Your task to perform on an android device: Add razer kraken to the cart on costco Image 0: 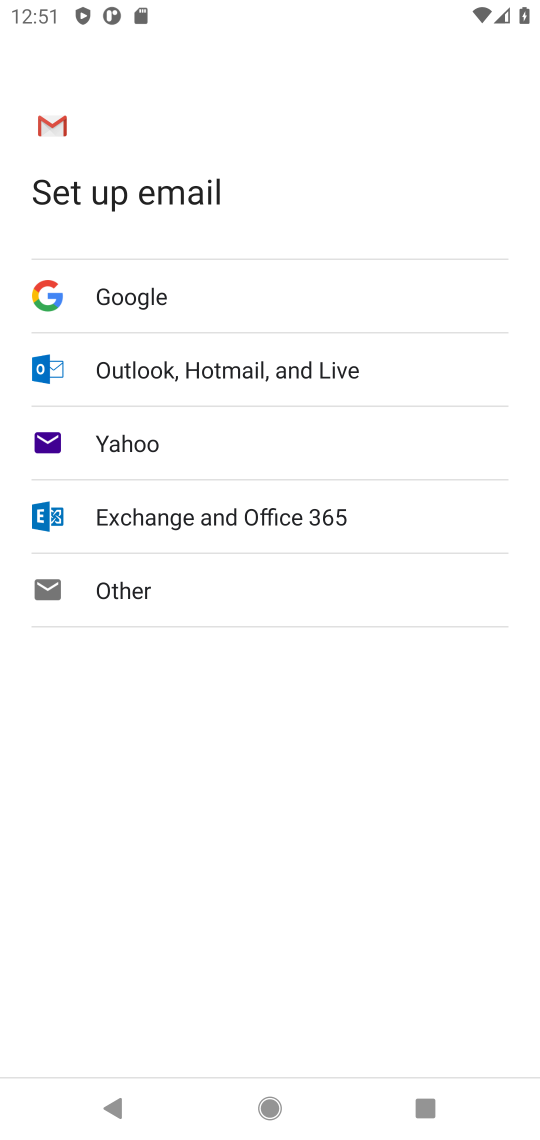
Step 0: press home button
Your task to perform on an android device: Add razer kraken to the cart on costco Image 1: 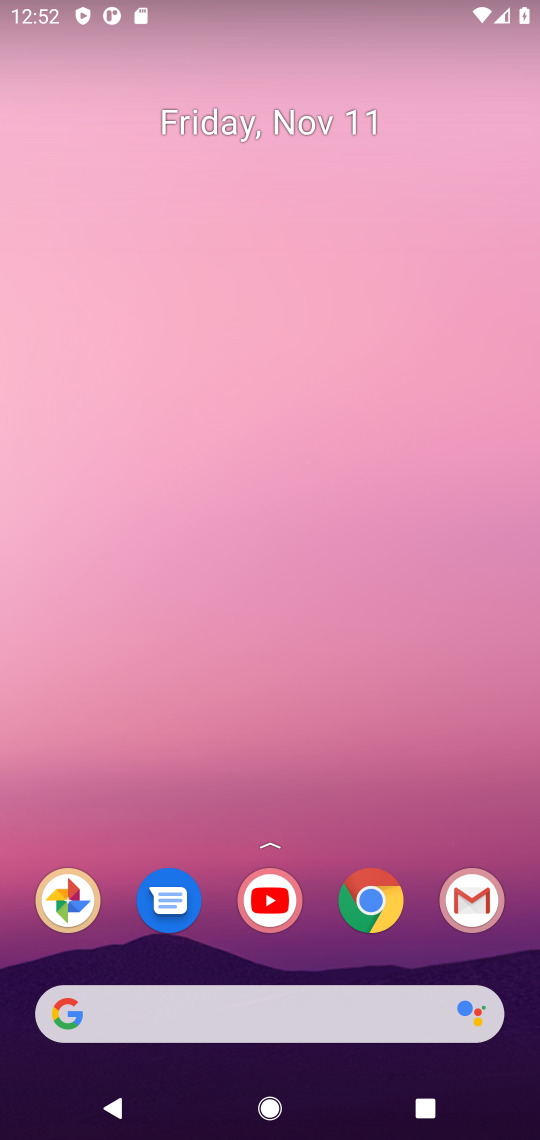
Step 1: click (366, 902)
Your task to perform on an android device: Add razer kraken to the cart on costco Image 2: 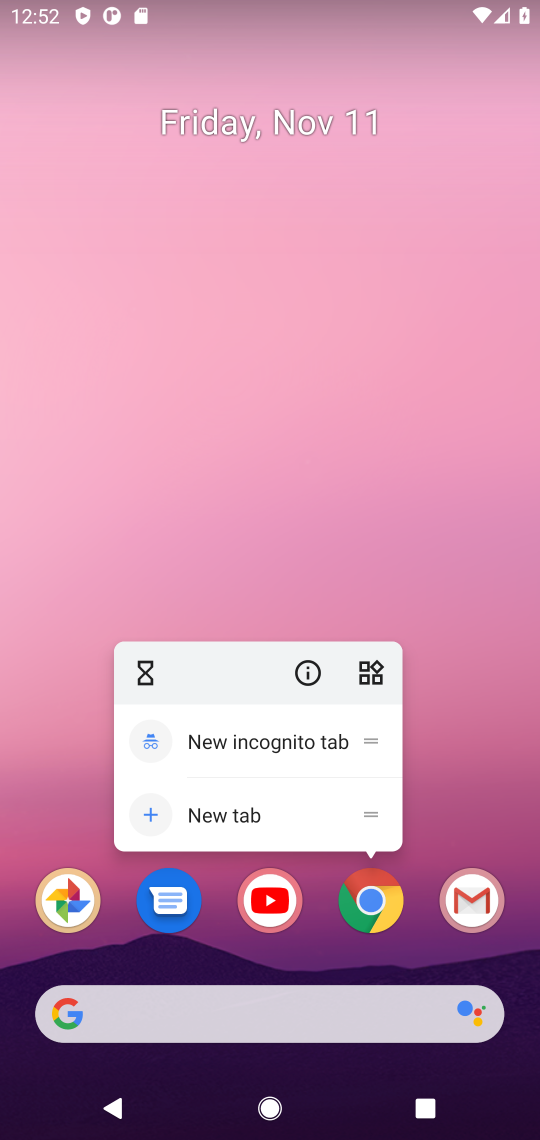
Step 2: click (304, 931)
Your task to perform on an android device: Add razer kraken to the cart on costco Image 3: 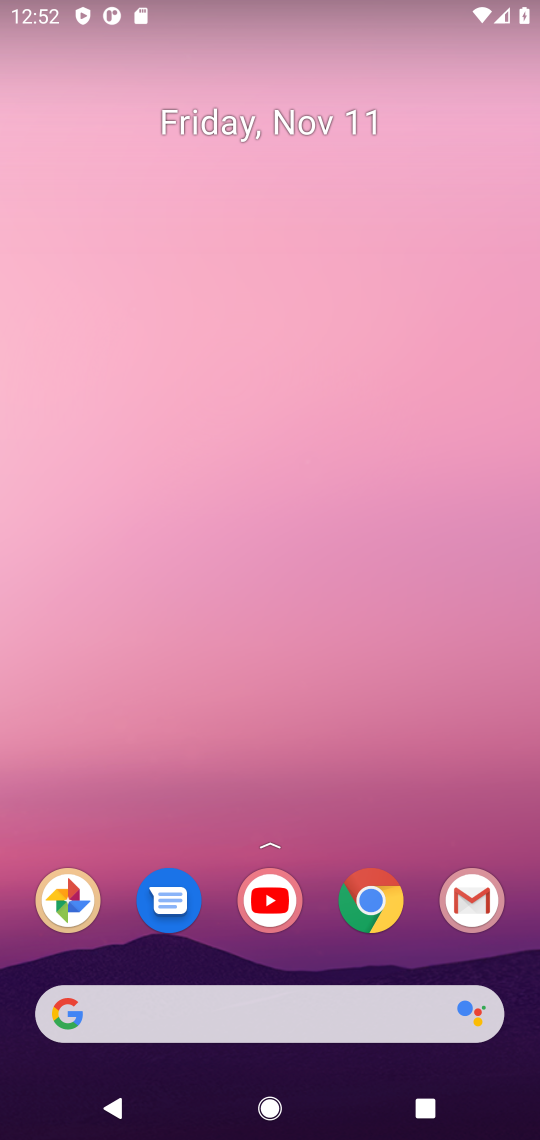
Step 3: click (372, 908)
Your task to perform on an android device: Add razer kraken to the cart on costco Image 4: 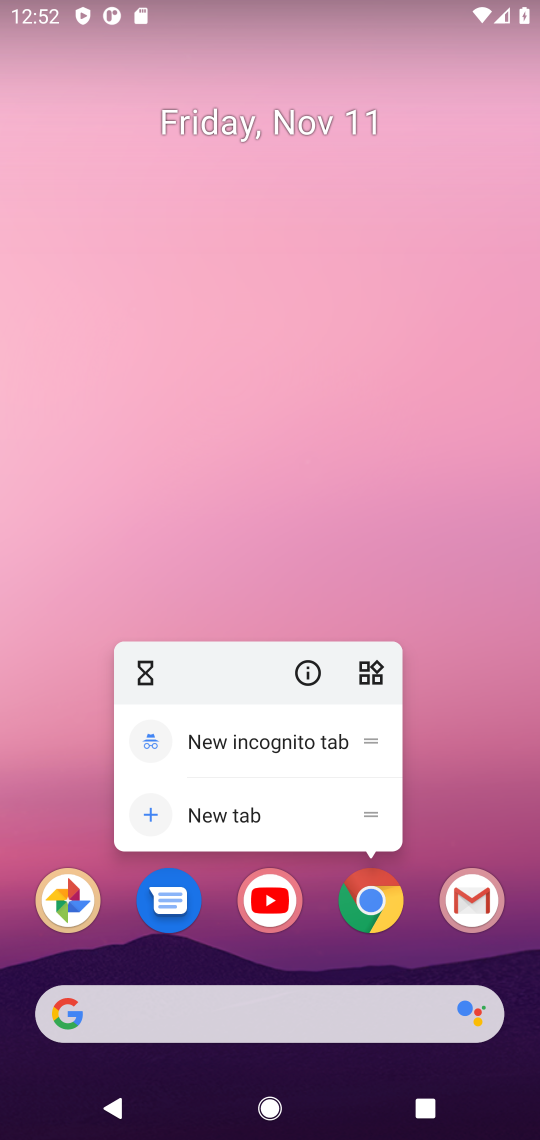
Step 4: click (372, 909)
Your task to perform on an android device: Add razer kraken to the cart on costco Image 5: 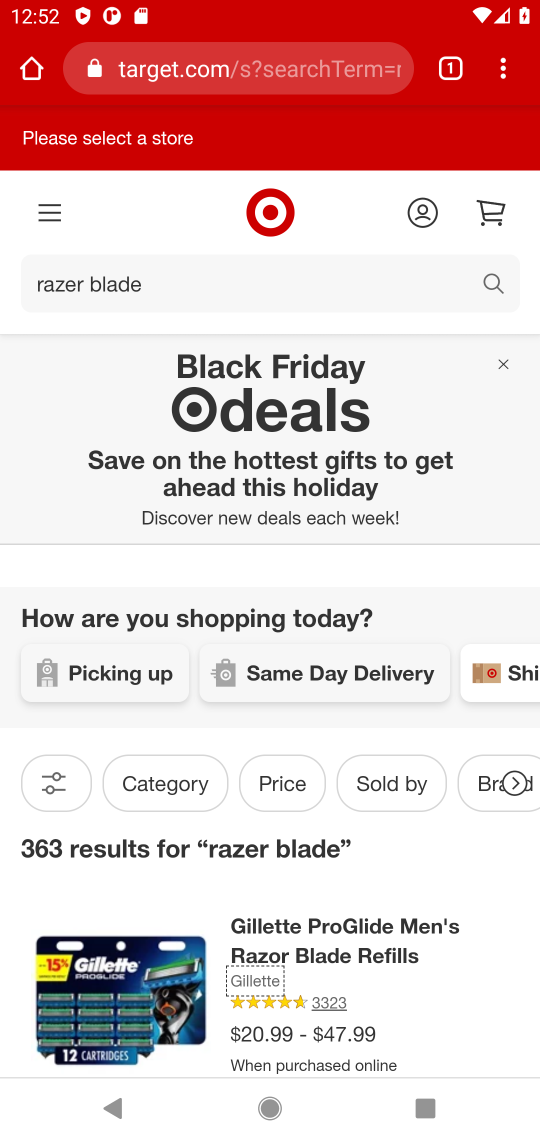
Step 5: click (248, 70)
Your task to perform on an android device: Add razer kraken to the cart on costco Image 6: 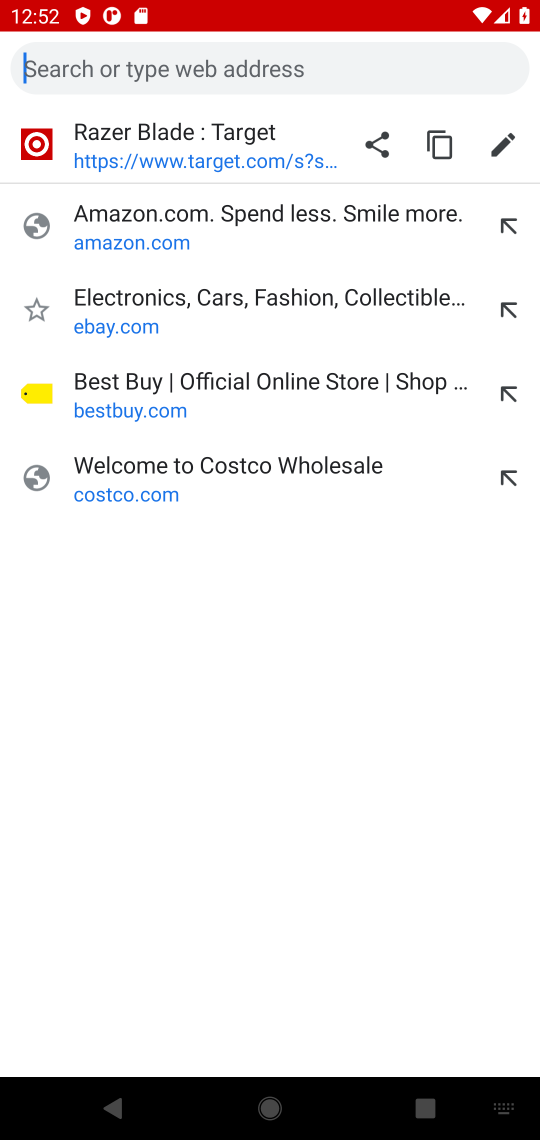
Step 6: press enter
Your task to perform on an android device: Add razer kraken to the cart on costco Image 7: 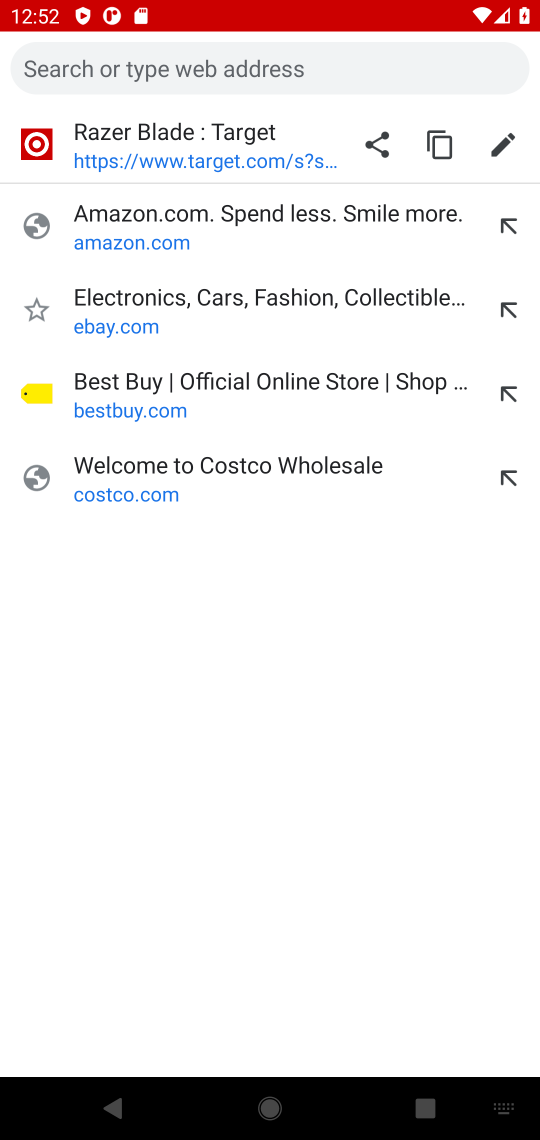
Step 7: type "costco"
Your task to perform on an android device: Add razer kraken to the cart on costco Image 8: 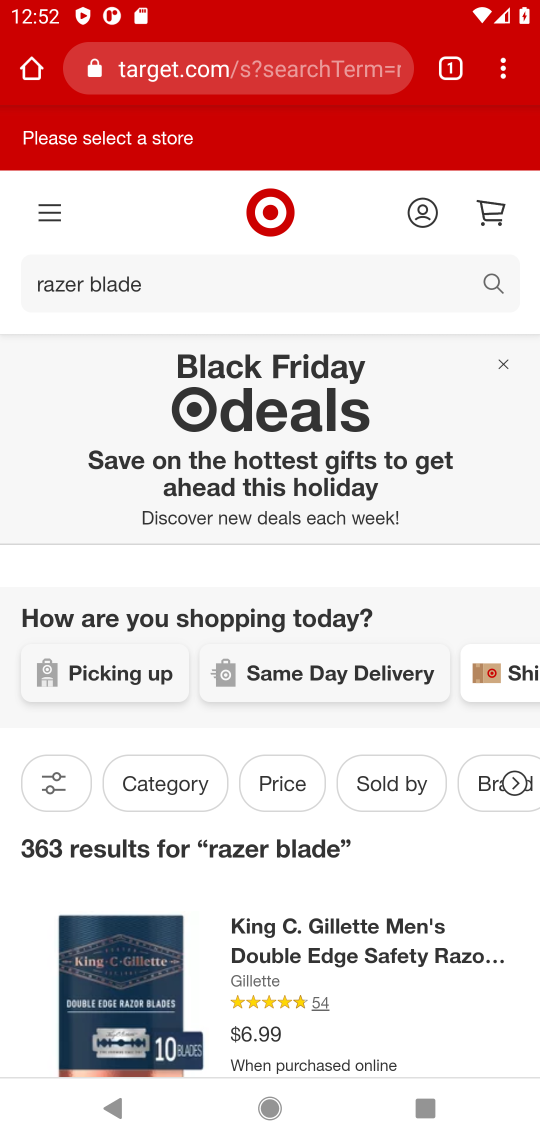
Step 8: click (231, 68)
Your task to perform on an android device: Add razer kraken to the cart on costco Image 9: 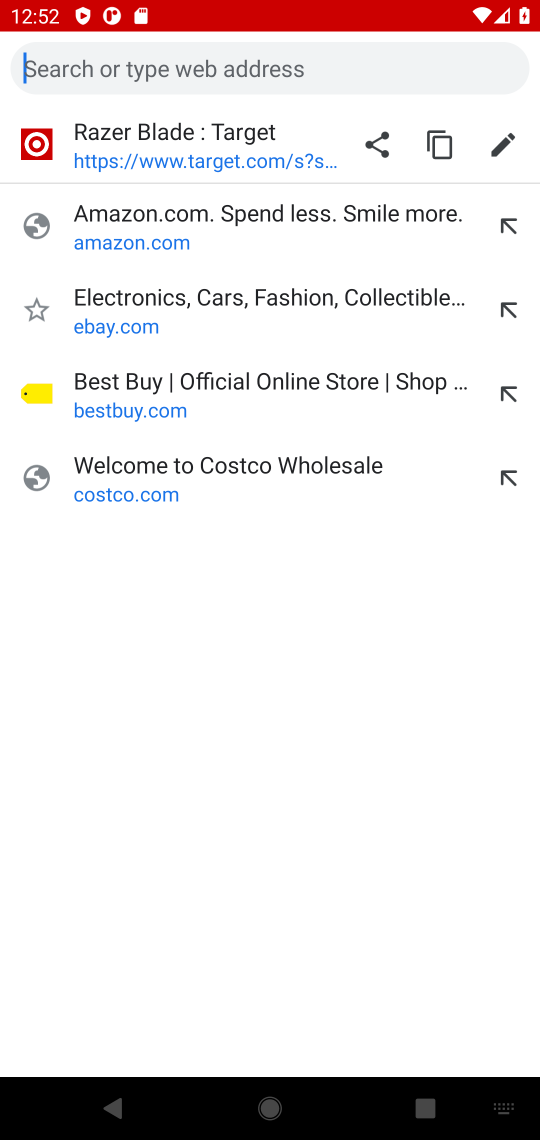
Step 9: type "costco"
Your task to perform on an android device: Add razer kraken to the cart on costco Image 10: 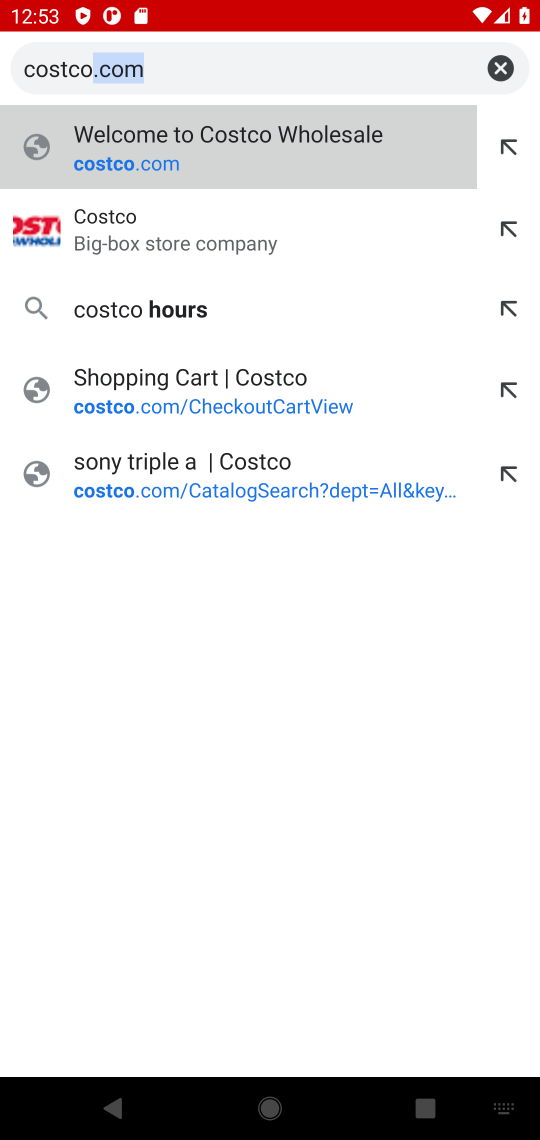
Step 10: press enter
Your task to perform on an android device: Add razer kraken to the cart on costco Image 11: 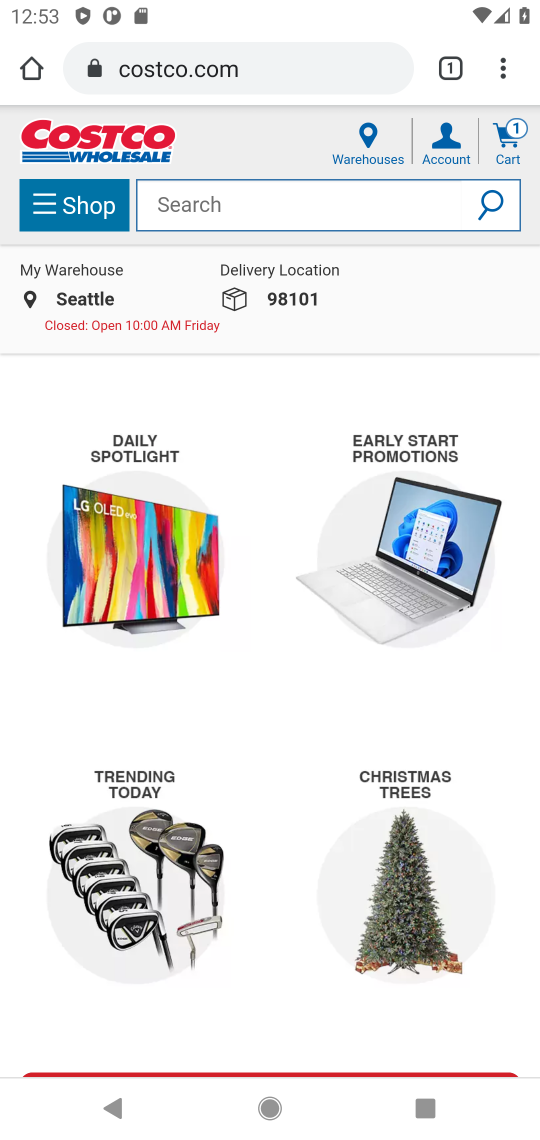
Step 11: click (272, 207)
Your task to perform on an android device: Add razer kraken to the cart on costco Image 12: 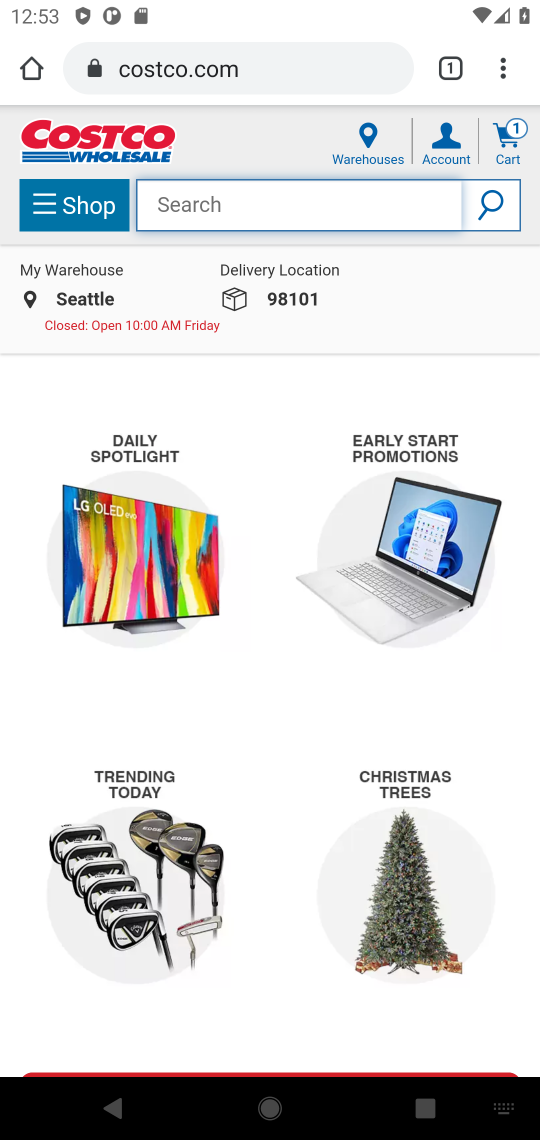
Step 12: type " razer kraken "
Your task to perform on an android device: Add razer kraken to the cart on costco Image 13: 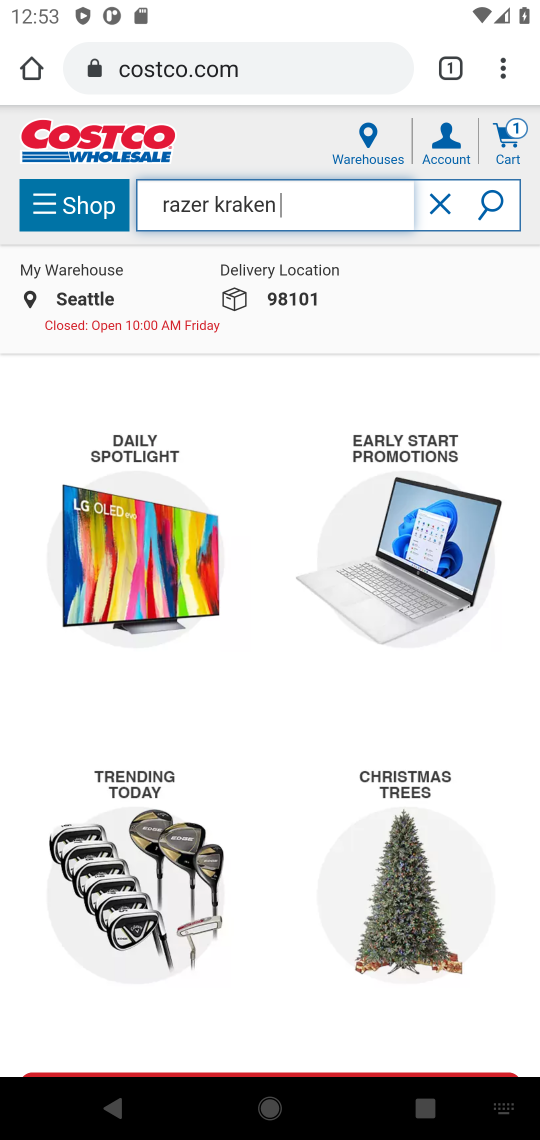
Step 13: press enter
Your task to perform on an android device: Add razer kraken to the cart on costco Image 14: 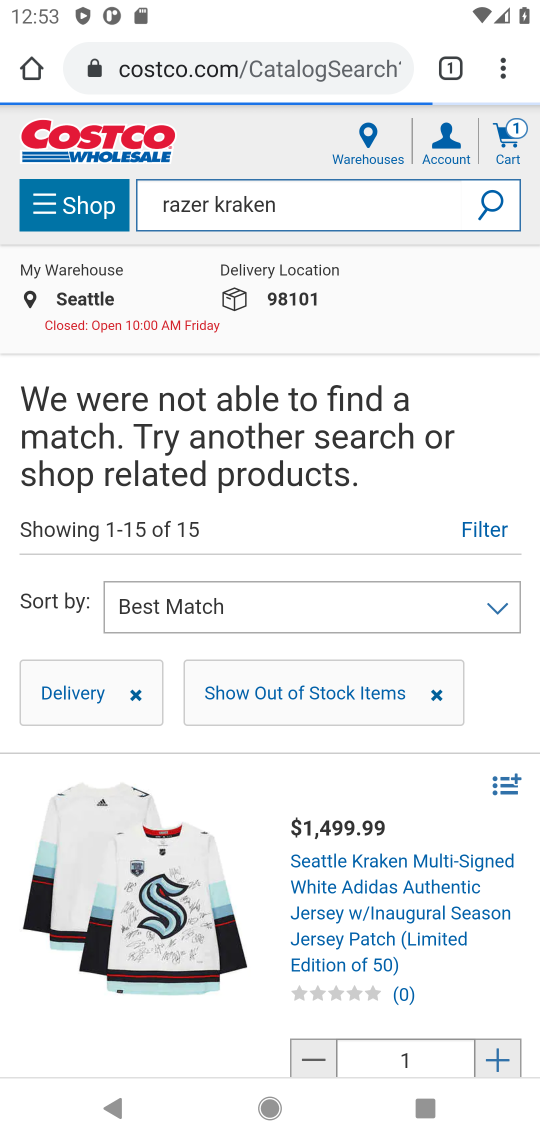
Step 14: task complete